Your task to perform on an android device: open a new tab in the chrome app Image 0: 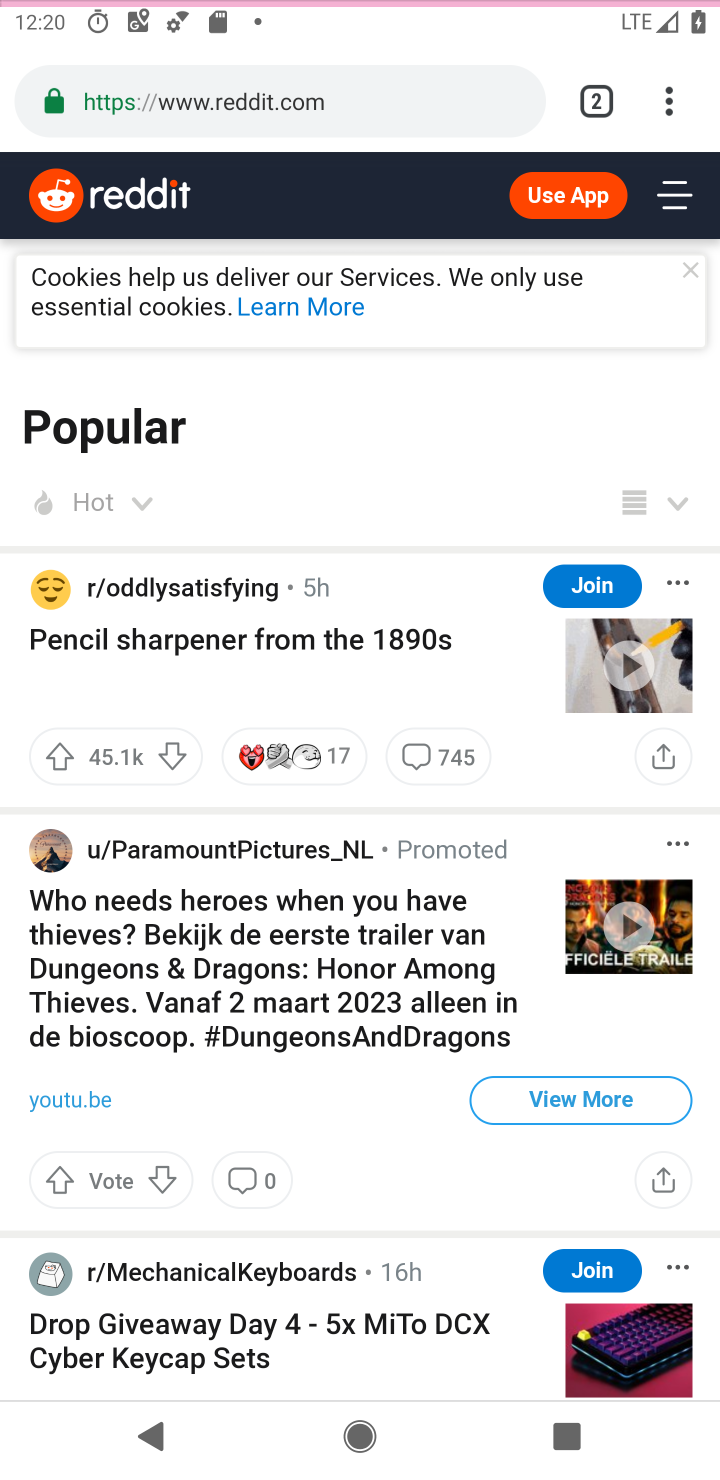
Step 0: drag from (347, 1237) to (244, 956)
Your task to perform on an android device: open a new tab in the chrome app Image 1: 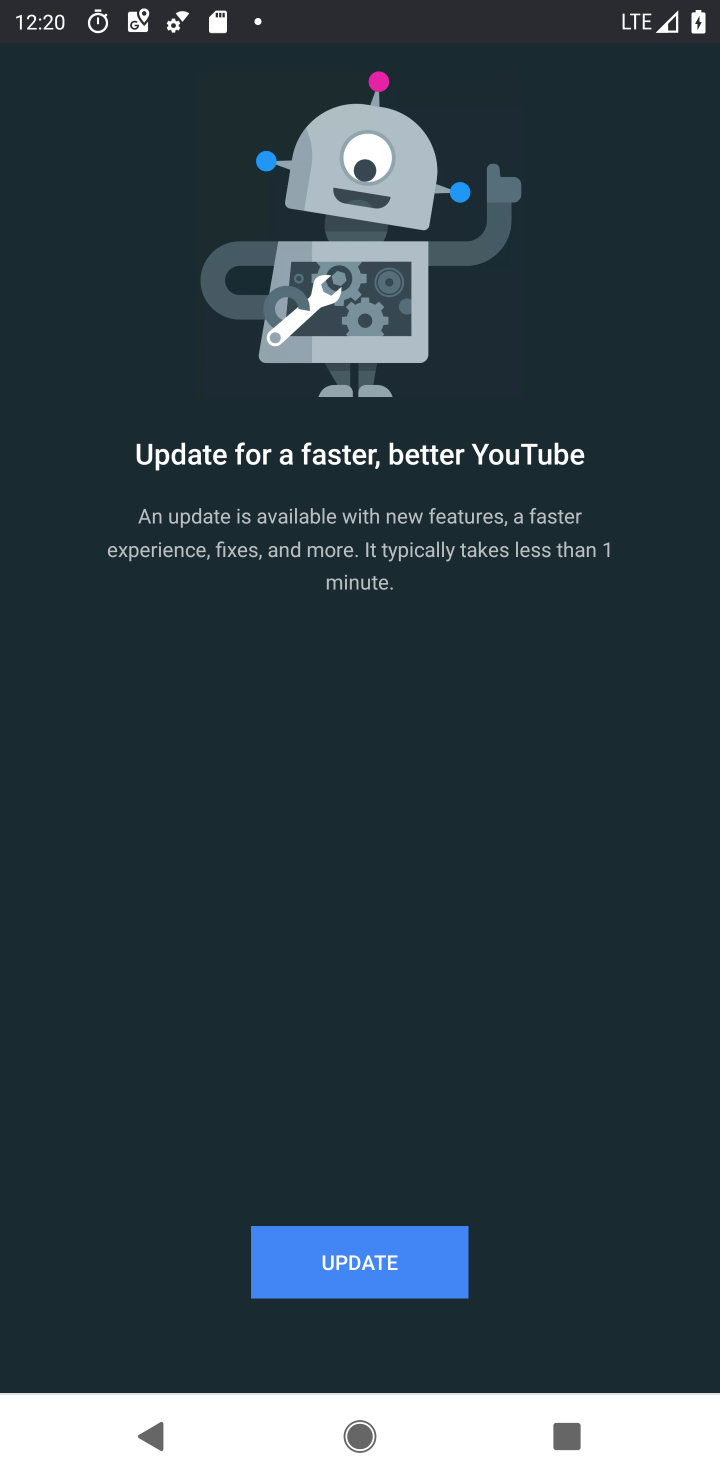
Step 1: press home button
Your task to perform on an android device: open a new tab in the chrome app Image 2: 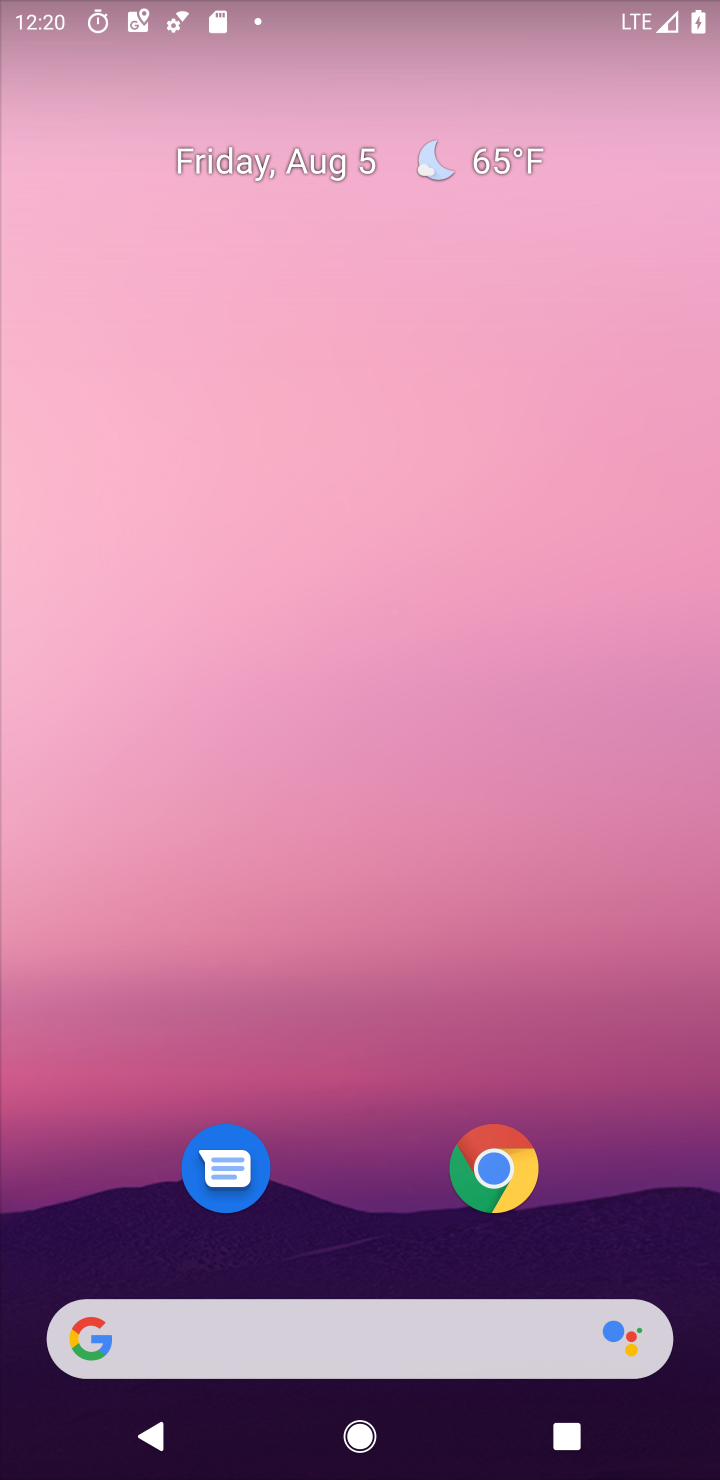
Step 2: click (511, 1176)
Your task to perform on an android device: open a new tab in the chrome app Image 3: 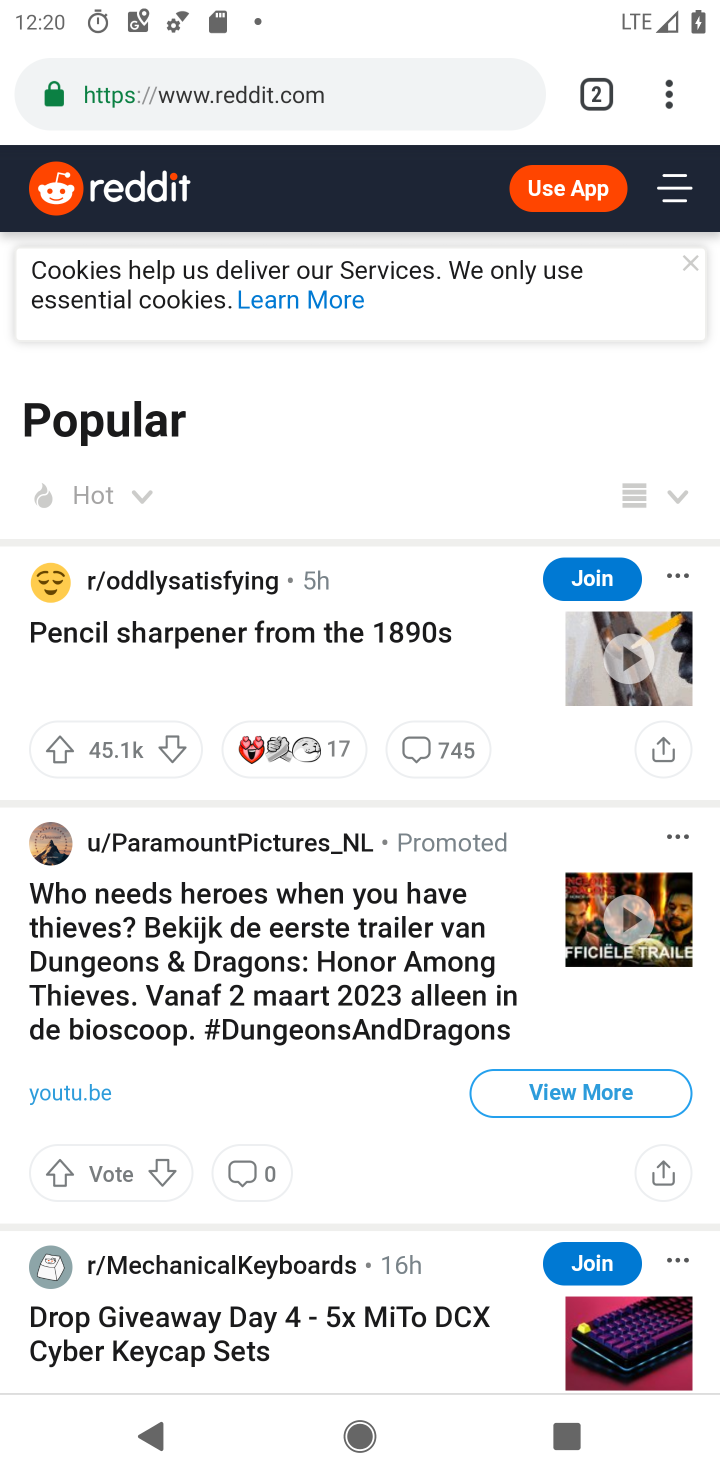
Step 3: click (663, 81)
Your task to perform on an android device: open a new tab in the chrome app Image 4: 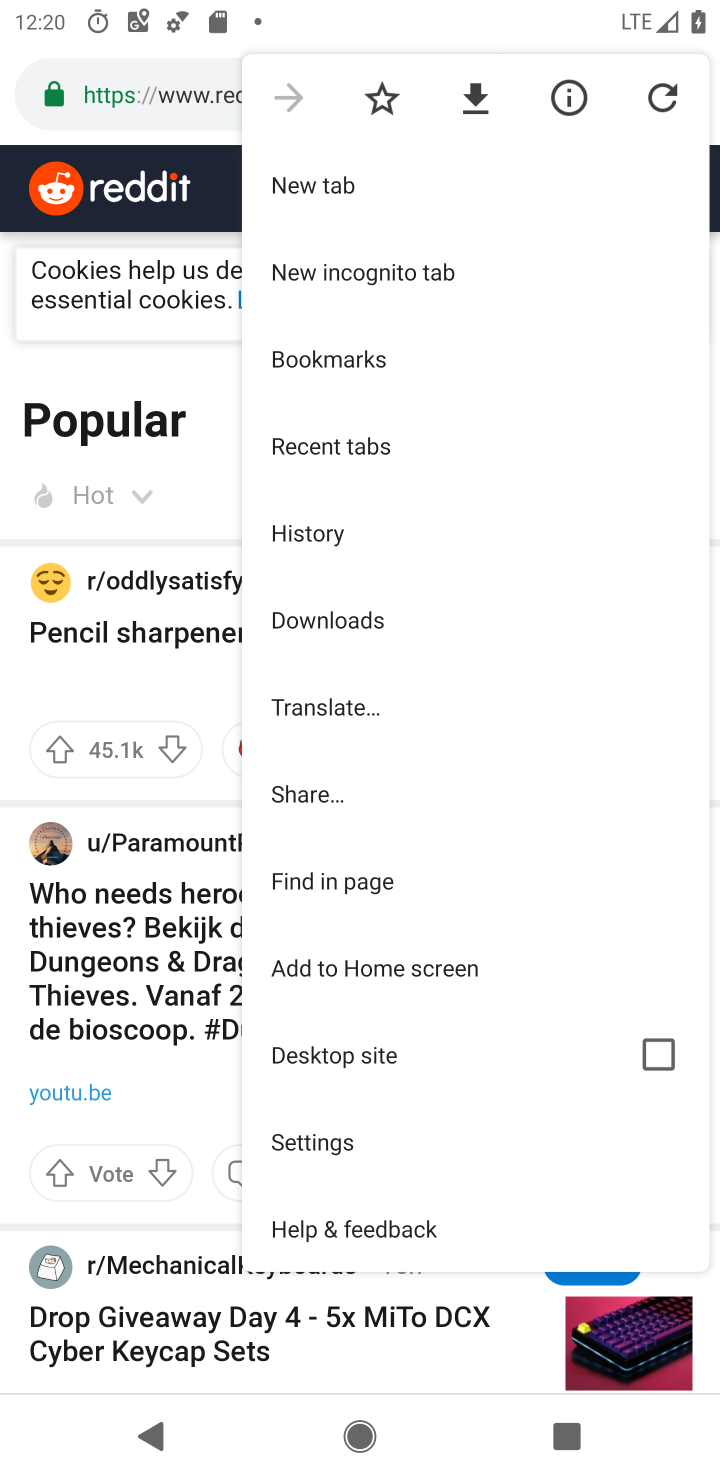
Step 4: click (334, 180)
Your task to perform on an android device: open a new tab in the chrome app Image 5: 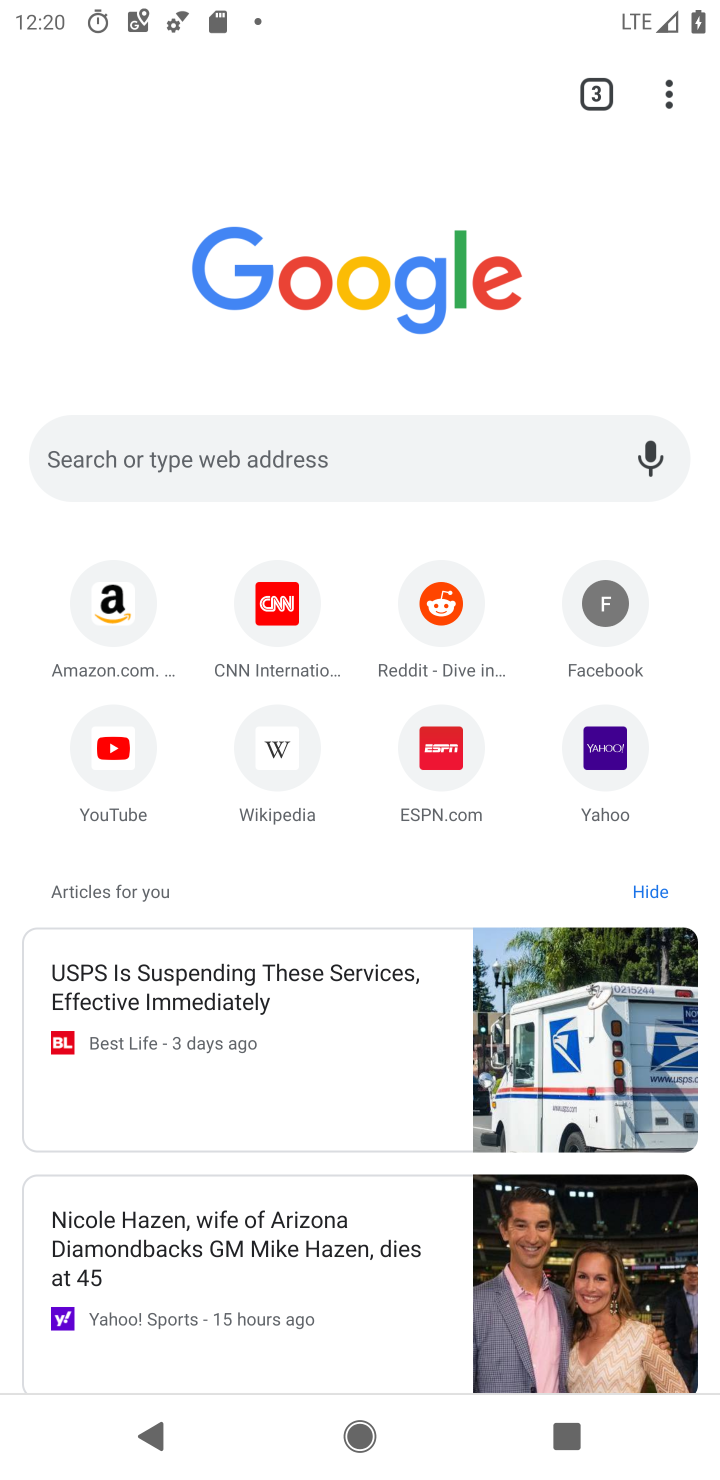
Step 5: task complete